Your task to perform on an android device: install app "TextNow: Call + Text Unlimited" Image 0: 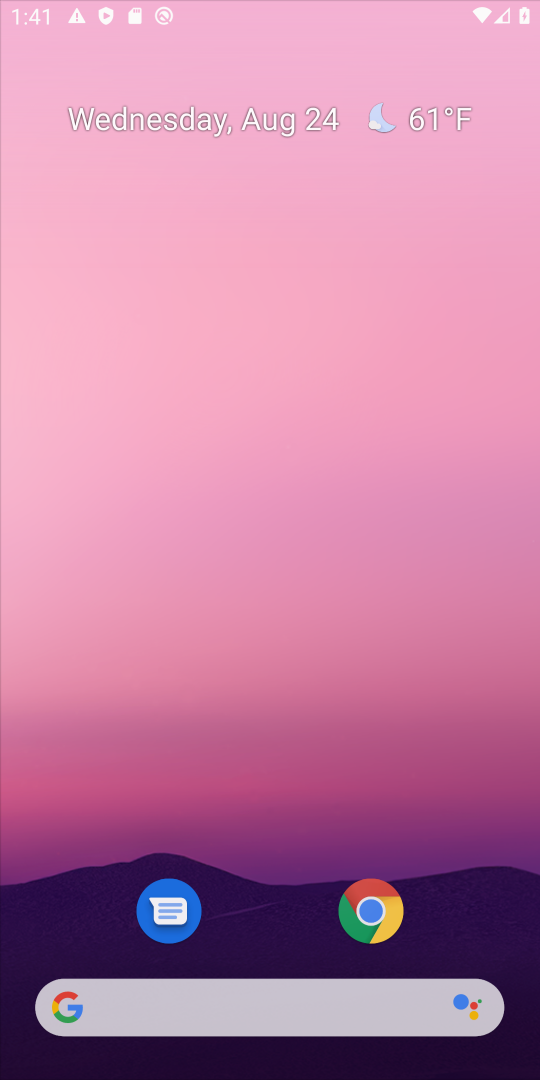
Step 0: click (234, 324)
Your task to perform on an android device: install app "TextNow: Call + Text Unlimited" Image 1: 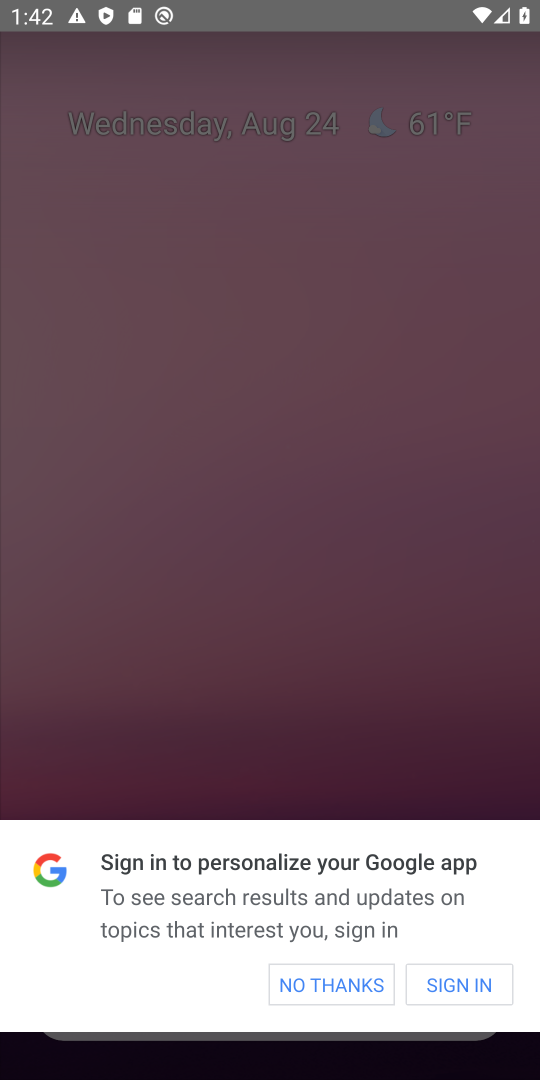
Step 1: click (392, 744)
Your task to perform on an android device: install app "TextNow: Call + Text Unlimited" Image 2: 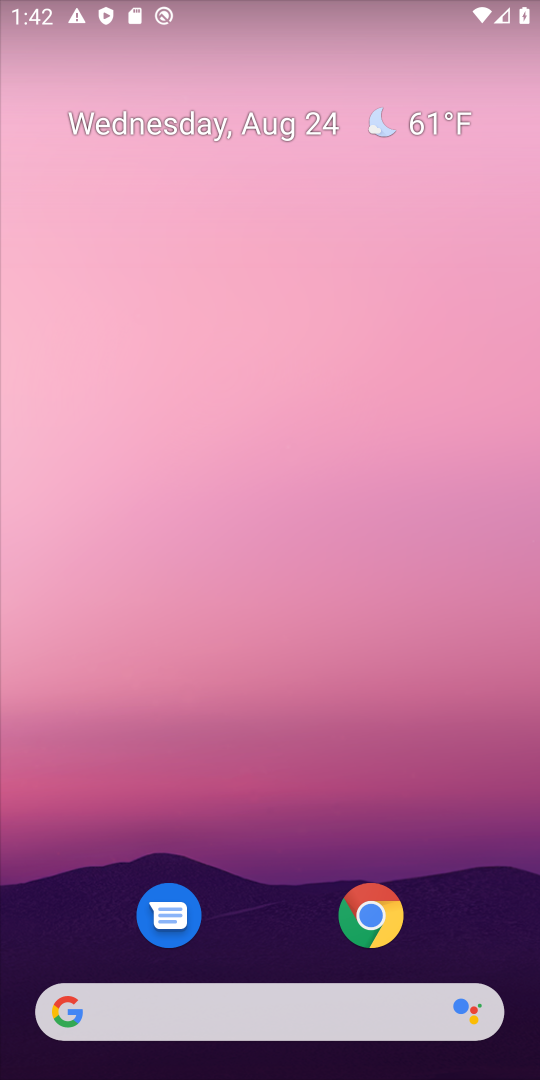
Step 2: drag from (270, 483) to (258, 236)
Your task to perform on an android device: install app "TextNow: Call + Text Unlimited" Image 3: 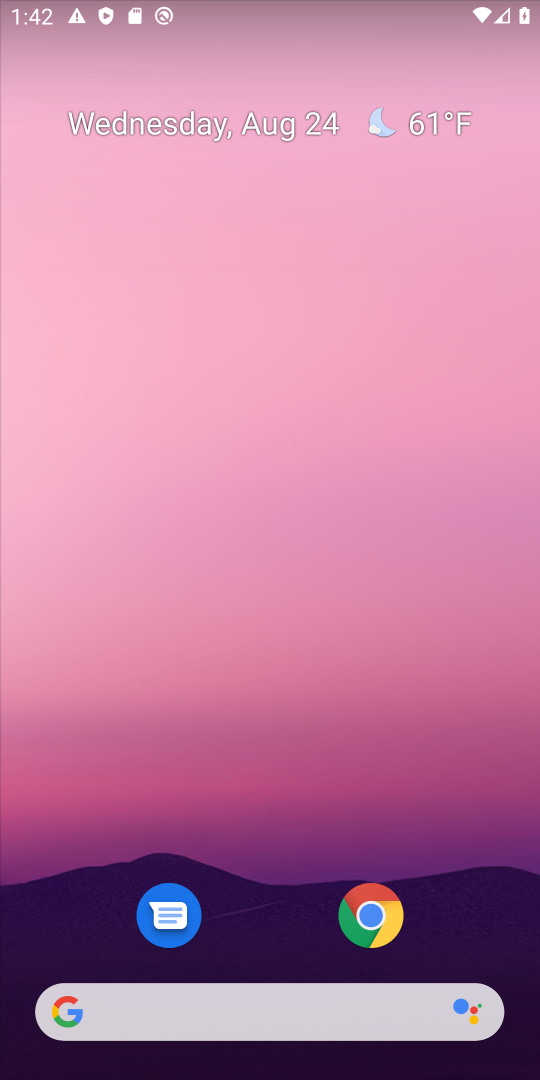
Step 3: drag from (280, 850) to (232, 178)
Your task to perform on an android device: install app "TextNow: Call + Text Unlimited" Image 4: 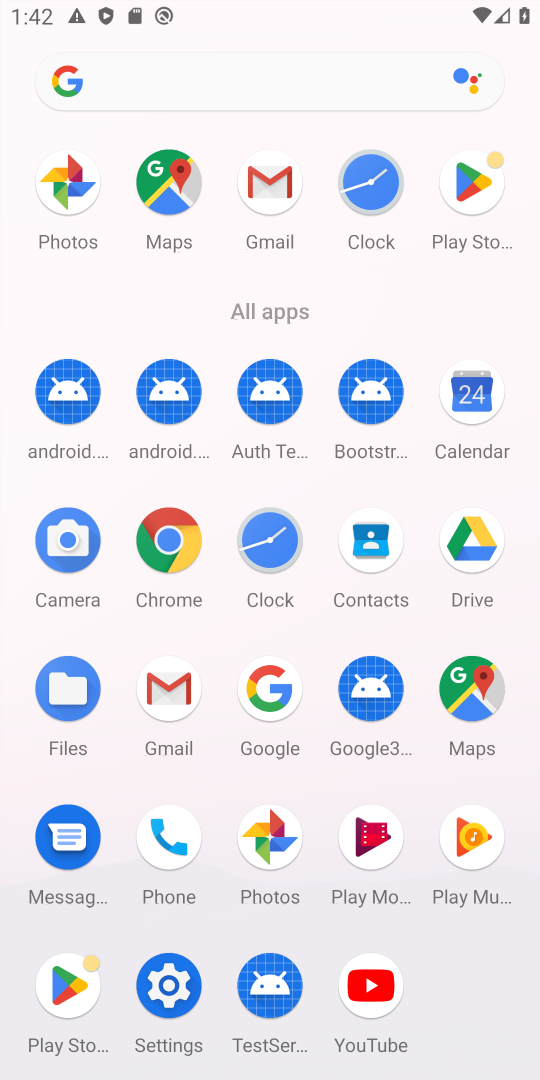
Step 4: click (478, 210)
Your task to perform on an android device: install app "TextNow: Call + Text Unlimited" Image 5: 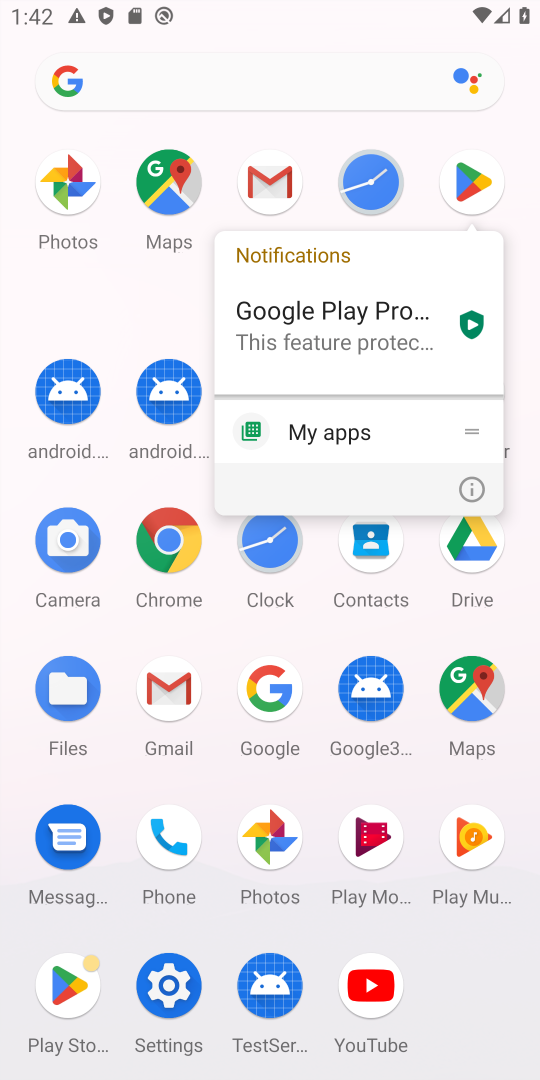
Step 5: click (471, 152)
Your task to perform on an android device: install app "TextNow: Call + Text Unlimited" Image 6: 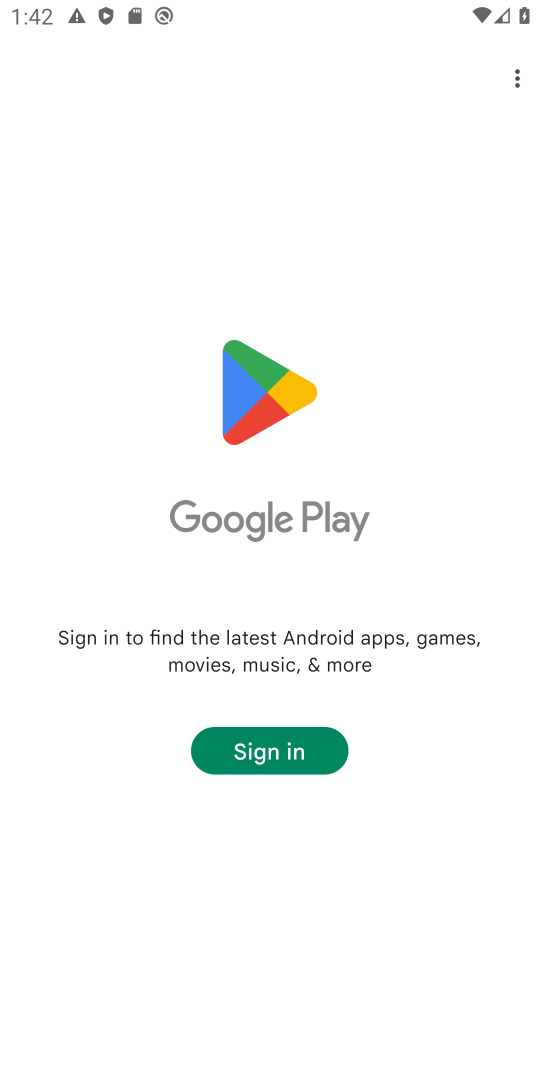
Step 6: task complete